Your task to perform on an android device: show emergency info Image 0: 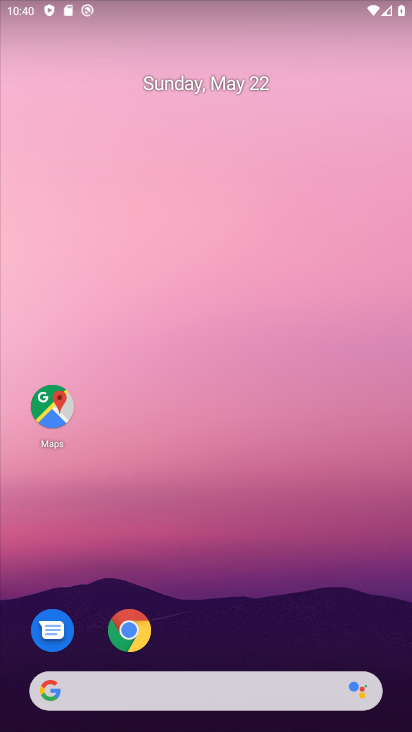
Step 0: drag from (353, 620) to (354, 176)
Your task to perform on an android device: show emergency info Image 1: 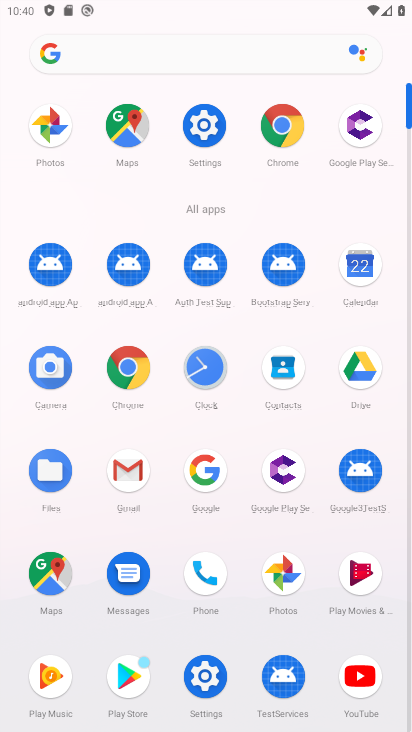
Step 1: click (221, 687)
Your task to perform on an android device: show emergency info Image 2: 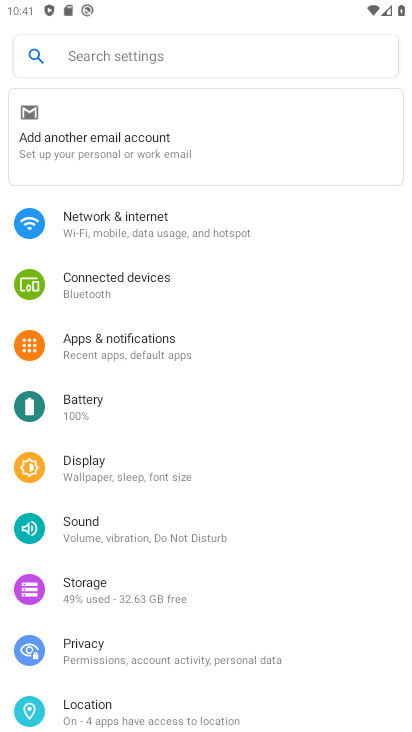
Step 2: drag from (320, 667) to (332, 492)
Your task to perform on an android device: show emergency info Image 3: 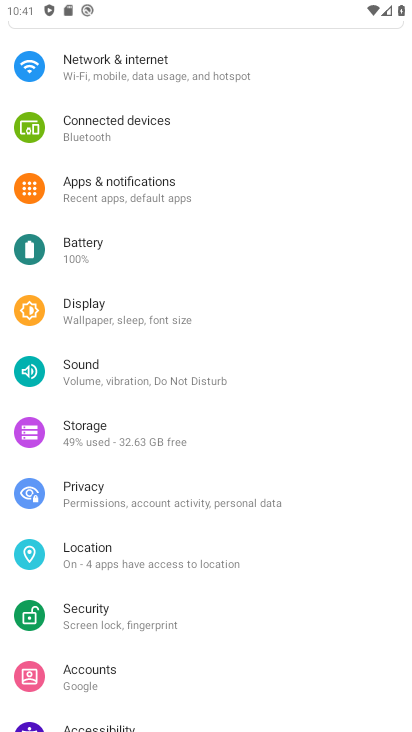
Step 3: drag from (332, 663) to (350, 496)
Your task to perform on an android device: show emergency info Image 4: 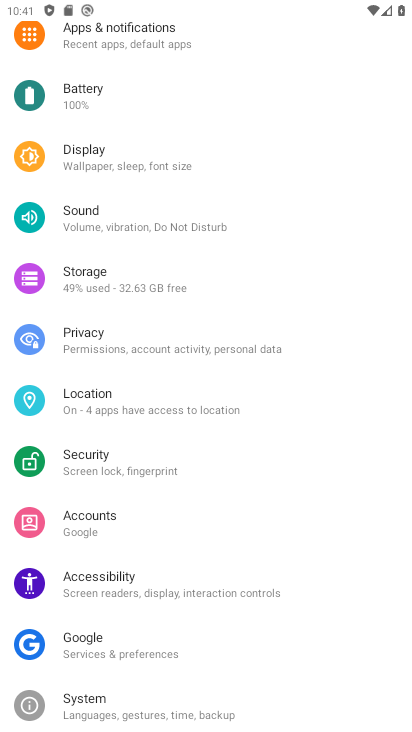
Step 4: drag from (344, 658) to (354, 539)
Your task to perform on an android device: show emergency info Image 5: 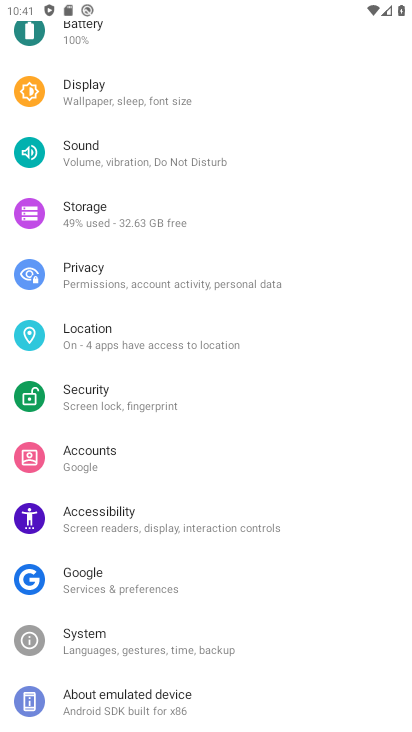
Step 5: drag from (321, 639) to (334, 491)
Your task to perform on an android device: show emergency info Image 6: 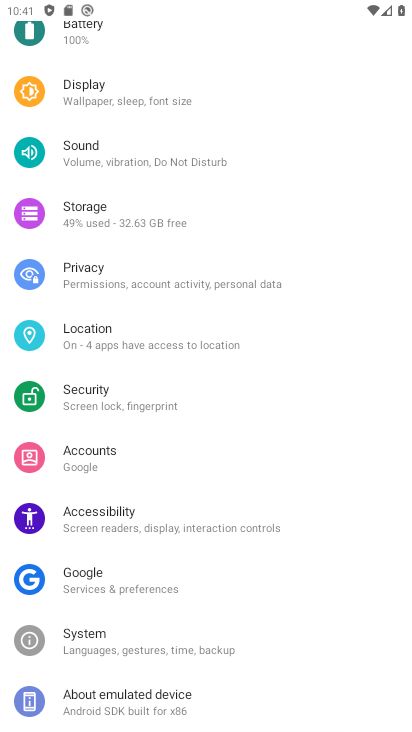
Step 6: drag from (330, 341) to (327, 460)
Your task to perform on an android device: show emergency info Image 7: 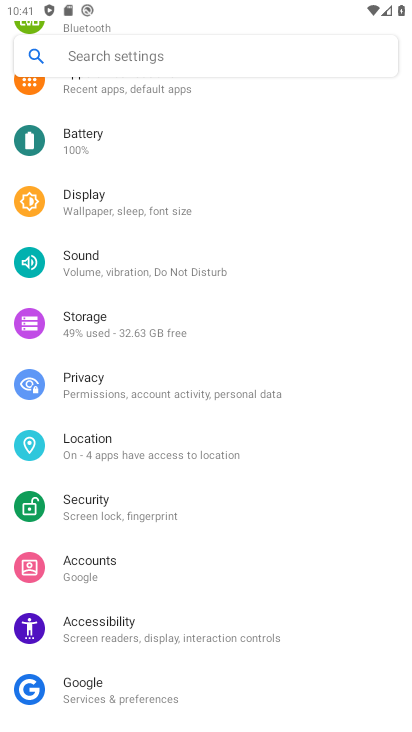
Step 7: drag from (322, 596) to (329, 447)
Your task to perform on an android device: show emergency info Image 8: 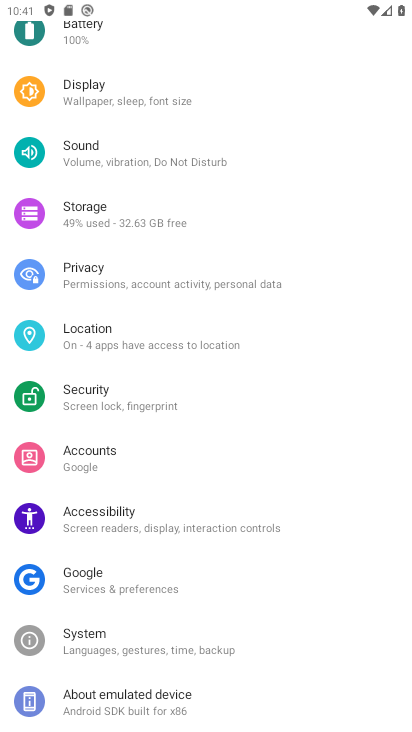
Step 8: drag from (331, 601) to (337, 474)
Your task to perform on an android device: show emergency info Image 9: 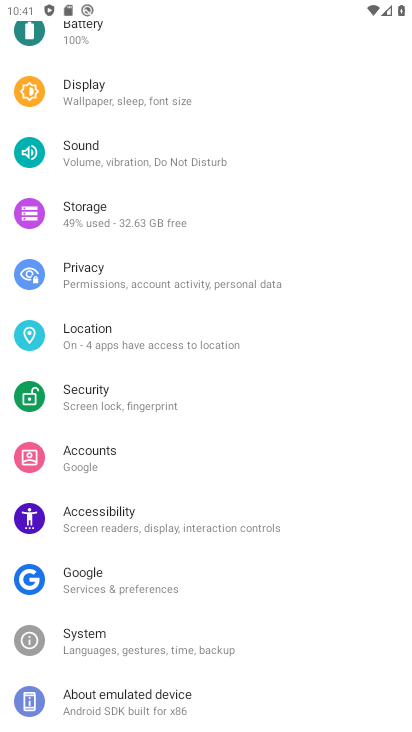
Step 9: click (187, 707)
Your task to perform on an android device: show emergency info Image 10: 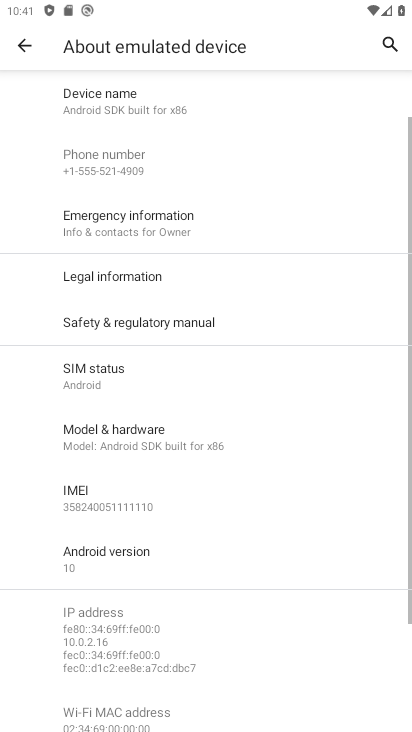
Step 10: click (226, 235)
Your task to perform on an android device: show emergency info Image 11: 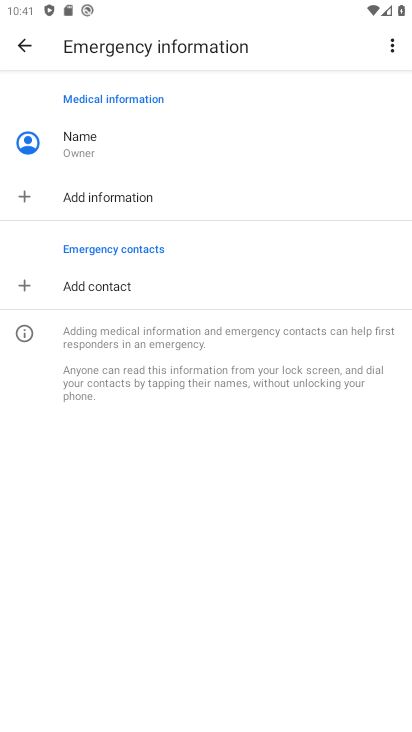
Step 11: task complete